Your task to perform on an android device: set default search engine in the chrome app Image 0: 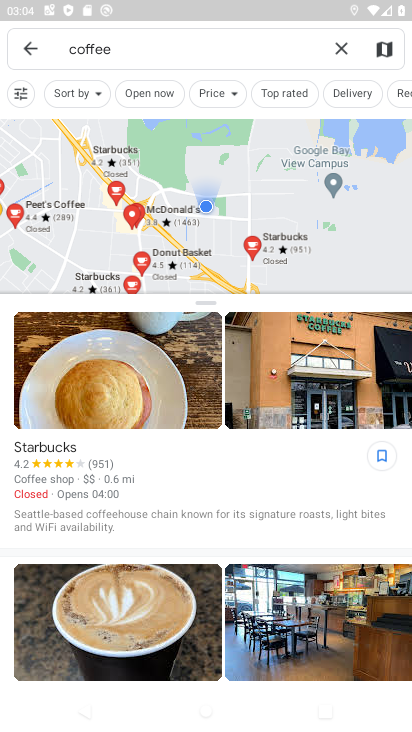
Step 0: press home button
Your task to perform on an android device: set default search engine in the chrome app Image 1: 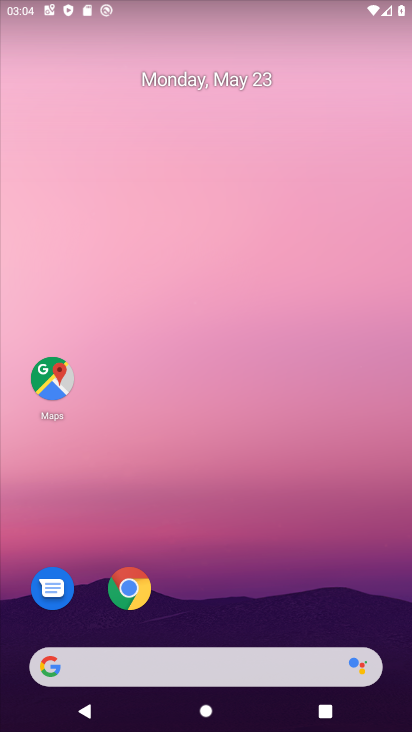
Step 1: drag from (219, 725) to (239, 231)
Your task to perform on an android device: set default search engine in the chrome app Image 2: 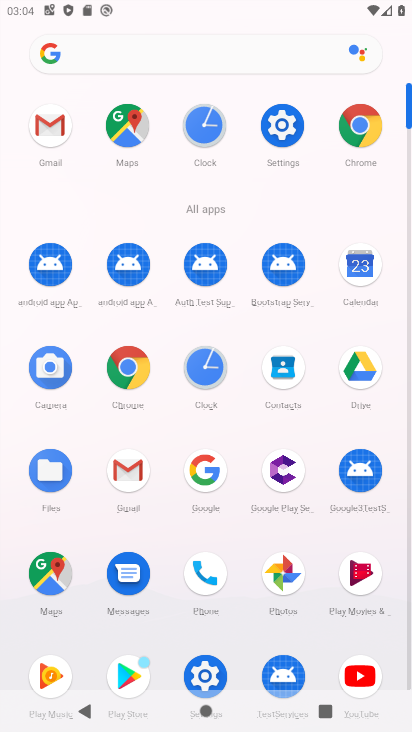
Step 2: click (360, 123)
Your task to perform on an android device: set default search engine in the chrome app Image 3: 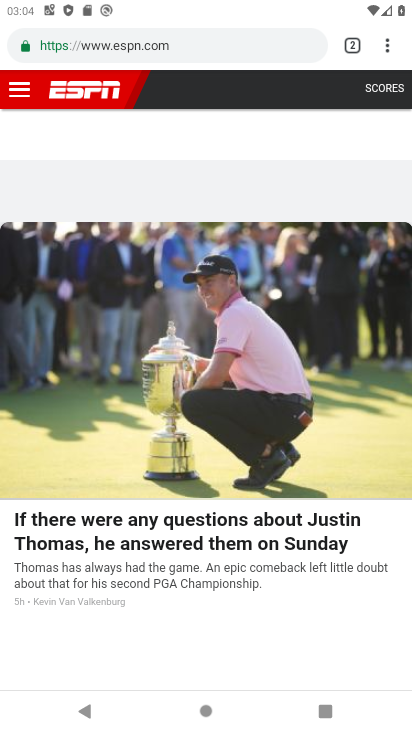
Step 3: click (386, 47)
Your task to perform on an android device: set default search engine in the chrome app Image 4: 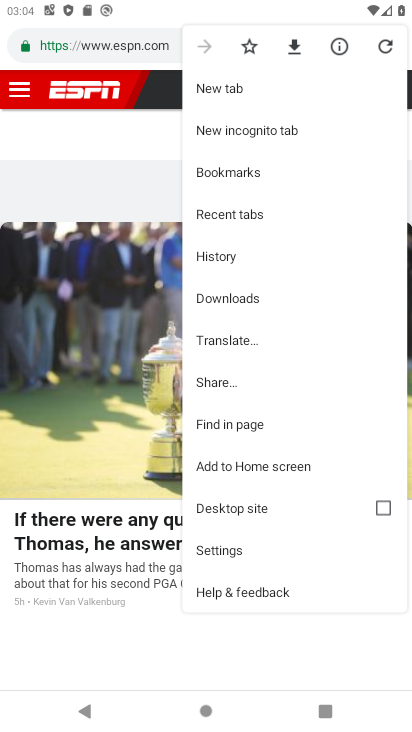
Step 4: click (222, 547)
Your task to perform on an android device: set default search engine in the chrome app Image 5: 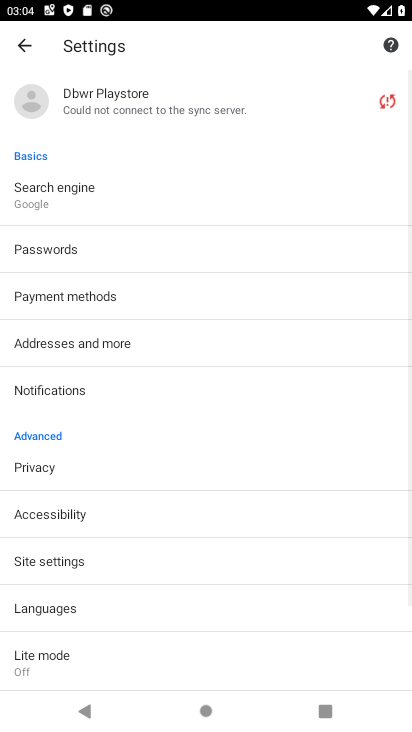
Step 5: click (64, 192)
Your task to perform on an android device: set default search engine in the chrome app Image 6: 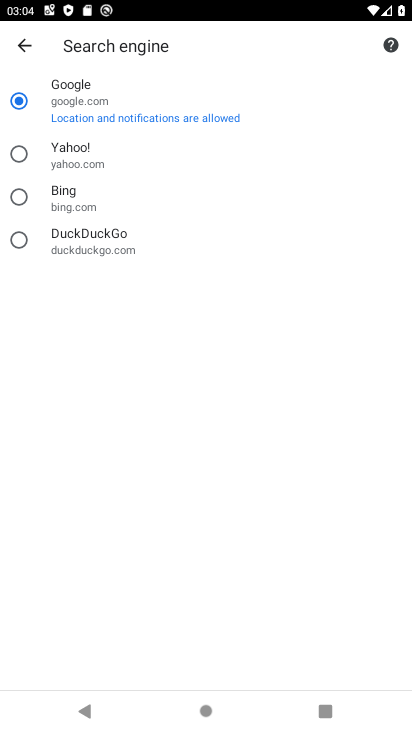
Step 6: click (19, 146)
Your task to perform on an android device: set default search engine in the chrome app Image 7: 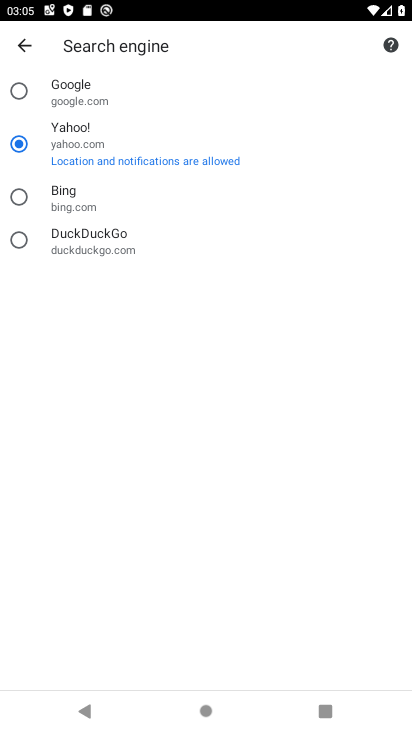
Step 7: task complete